Your task to perform on an android device: Open my contact list Image 0: 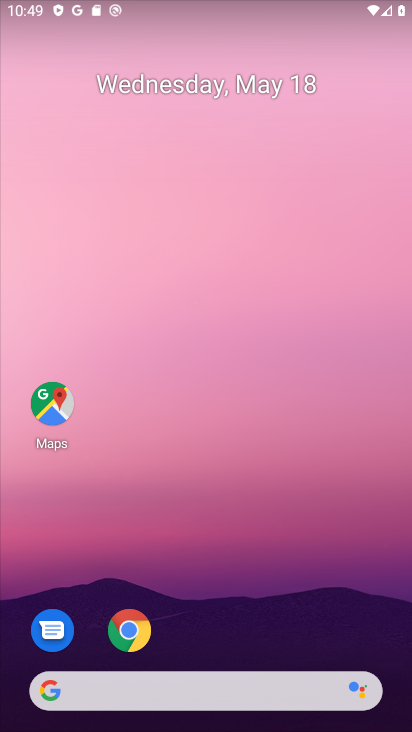
Step 0: drag from (270, 643) to (263, 246)
Your task to perform on an android device: Open my contact list Image 1: 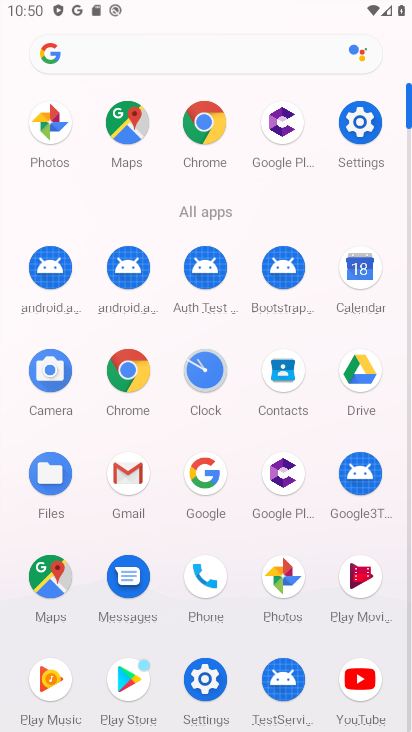
Step 1: click (281, 378)
Your task to perform on an android device: Open my contact list Image 2: 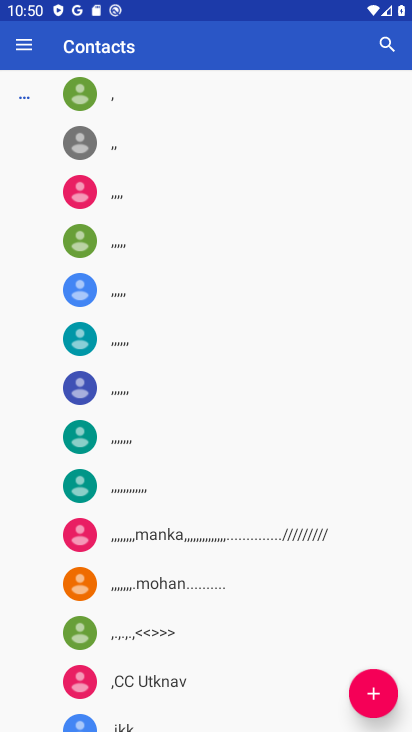
Step 2: task complete